Your task to perform on an android device: What's the price of the Hisense TV? Image 0: 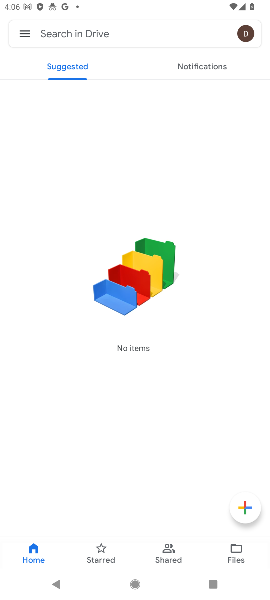
Step 0: press home button
Your task to perform on an android device: What's the price of the Hisense TV? Image 1: 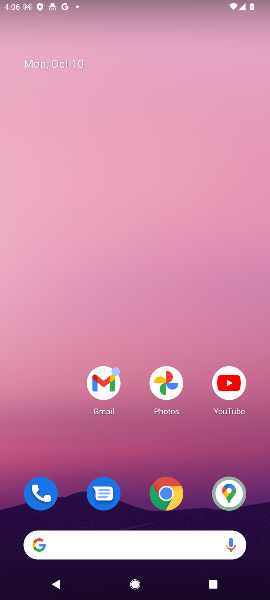
Step 1: click (147, 538)
Your task to perform on an android device: What's the price of the Hisense TV? Image 2: 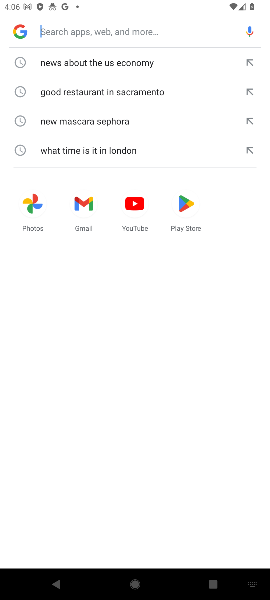
Step 2: type "What's the price of the Hisense TV"
Your task to perform on an android device: What's the price of the Hisense TV? Image 3: 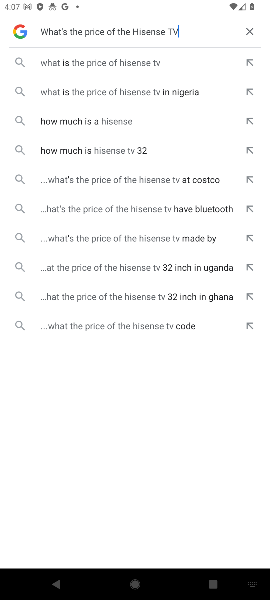
Step 3: click (168, 56)
Your task to perform on an android device: What's the price of the Hisense TV? Image 4: 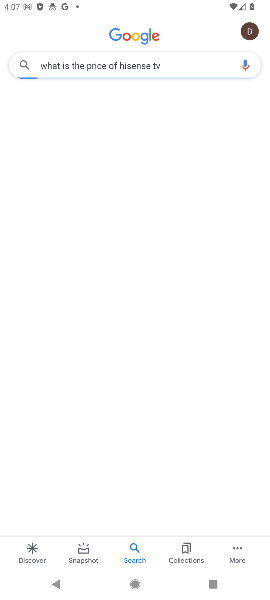
Step 4: task complete